Your task to perform on an android device: snooze an email in the gmail app Image 0: 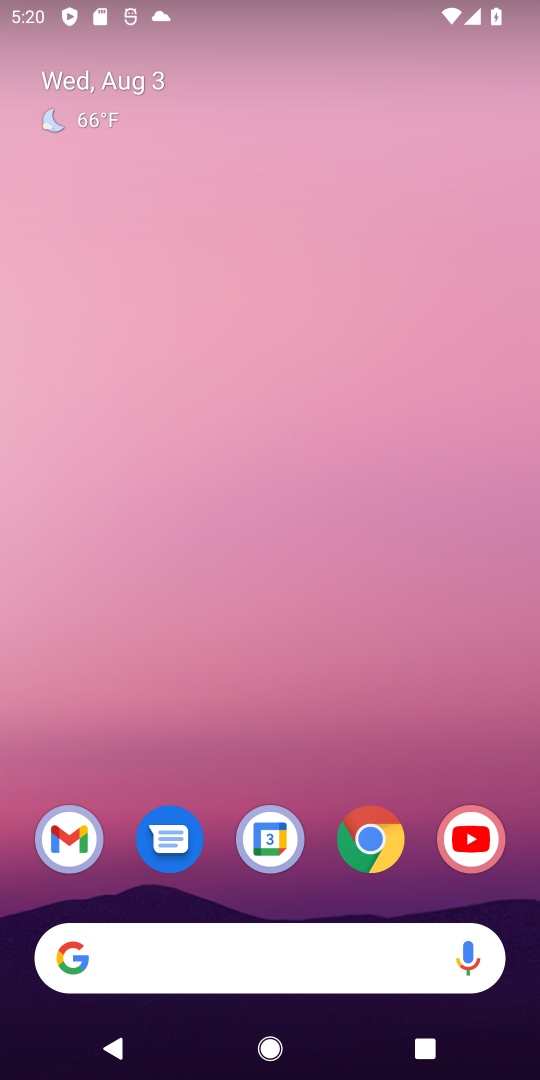
Step 0: click (78, 855)
Your task to perform on an android device: snooze an email in the gmail app Image 1: 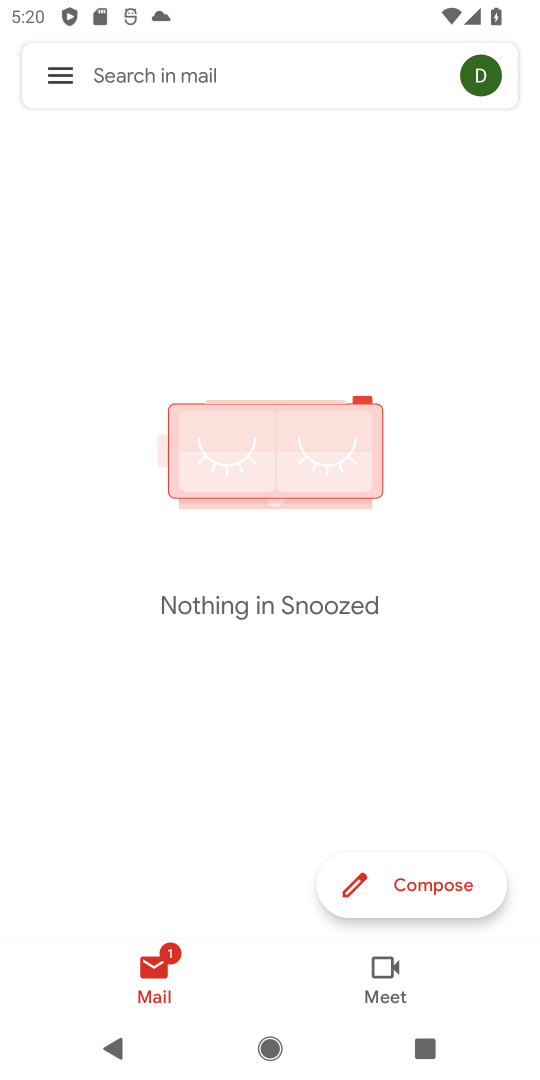
Step 1: click (55, 71)
Your task to perform on an android device: snooze an email in the gmail app Image 2: 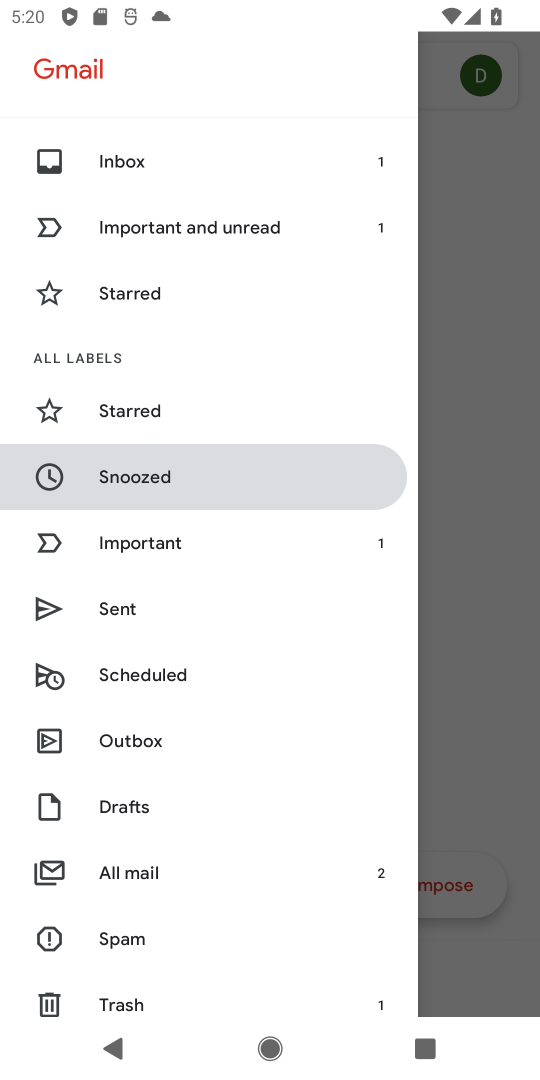
Step 2: click (165, 874)
Your task to perform on an android device: snooze an email in the gmail app Image 3: 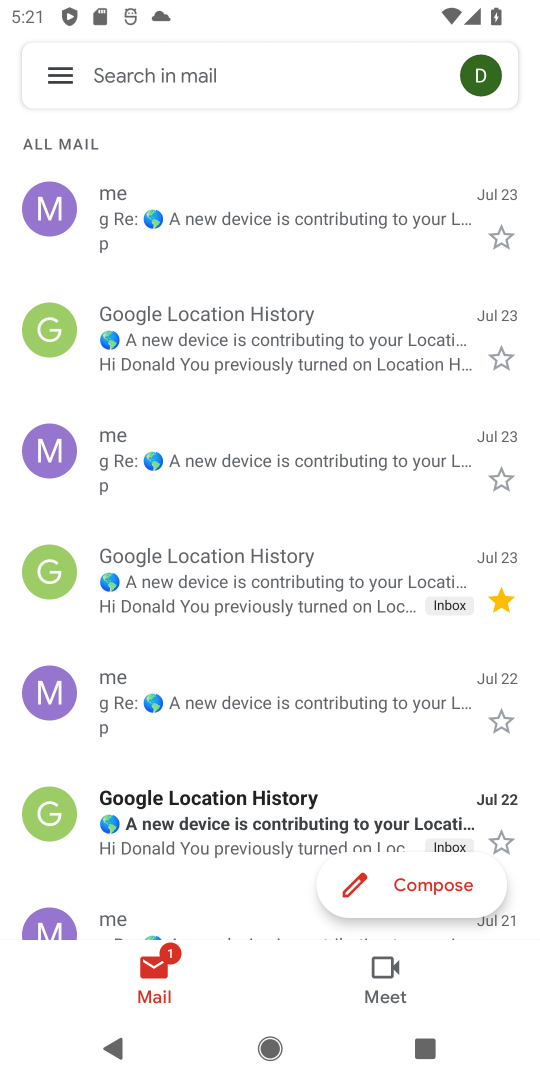
Step 3: click (243, 204)
Your task to perform on an android device: snooze an email in the gmail app Image 4: 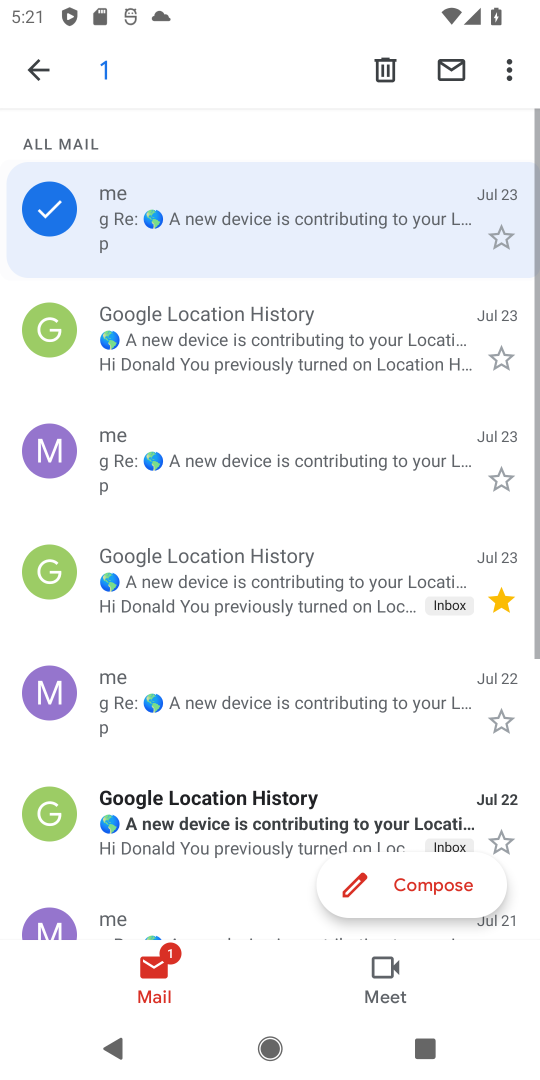
Step 4: click (507, 57)
Your task to perform on an android device: snooze an email in the gmail app Image 5: 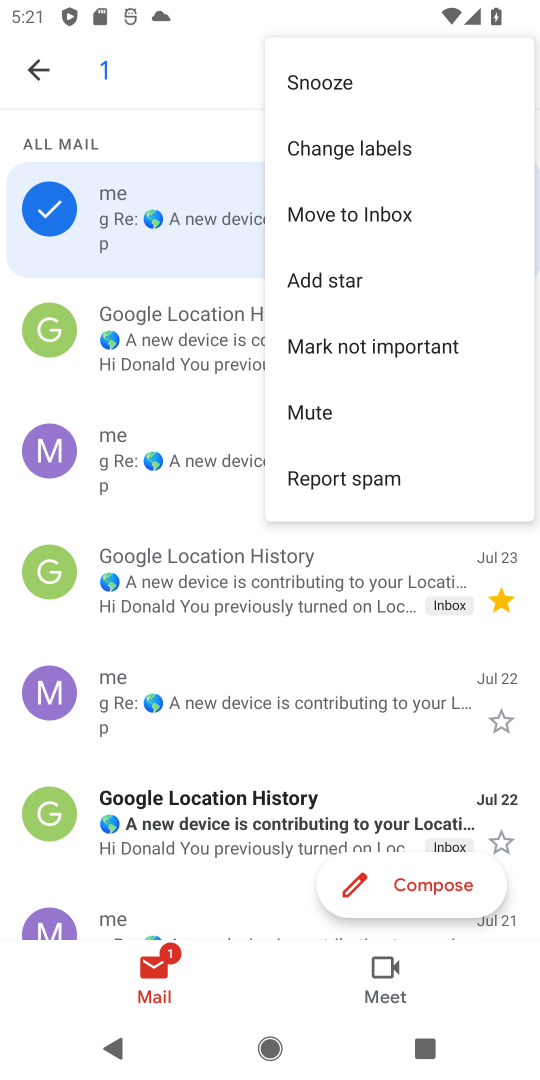
Step 5: click (326, 85)
Your task to perform on an android device: snooze an email in the gmail app Image 6: 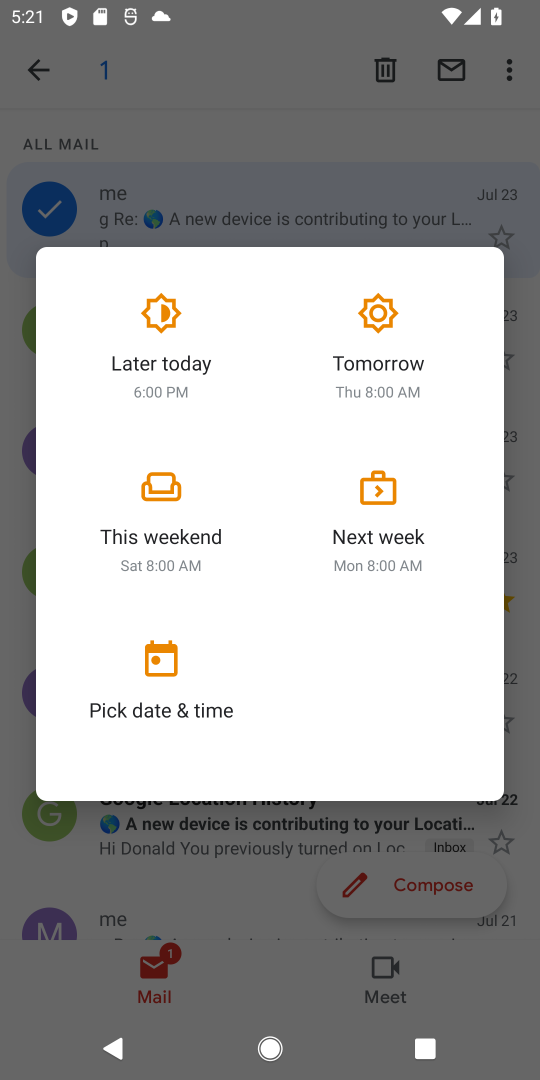
Step 6: click (189, 352)
Your task to perform on an android device: snooze an email in the gmail app Image 7: 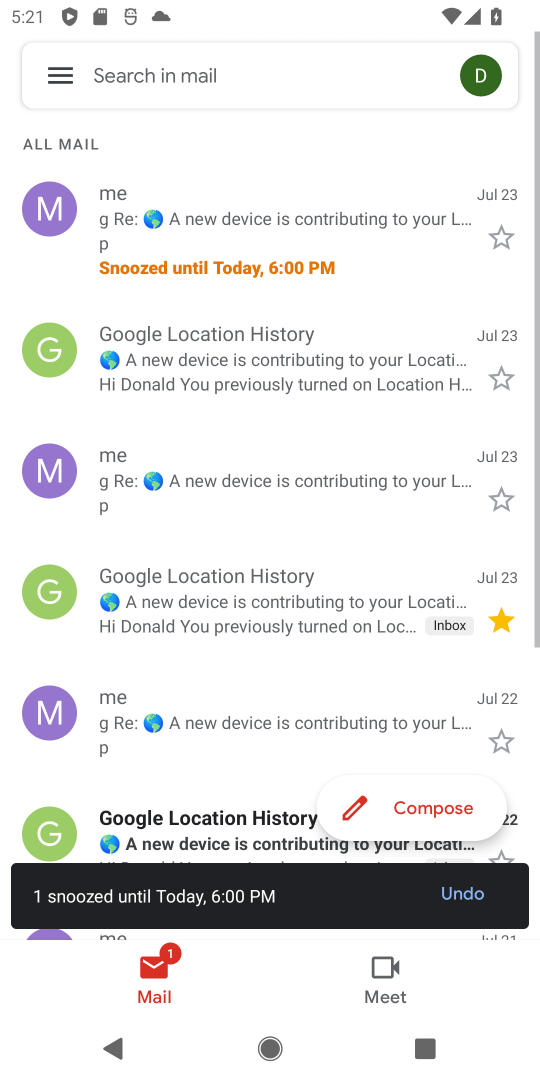
Step 7: task complete